Your task to perform on an android device: open chrome and create a bookmark for the current page Image 0: 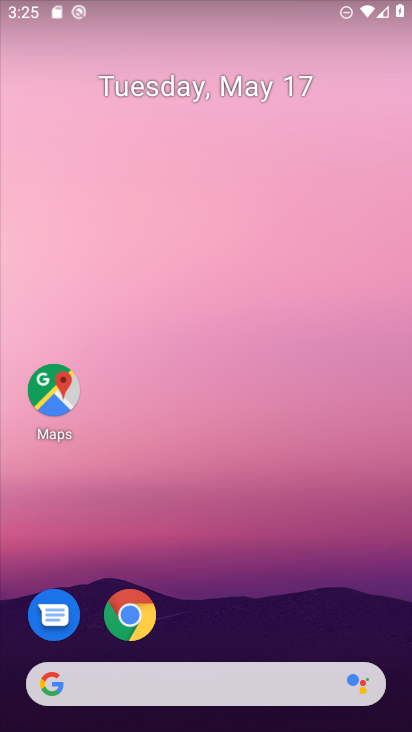
Step 0: click (125, 621)
Your task to perform on an android device: open chrome and create a bookmark for the current page Image 1: 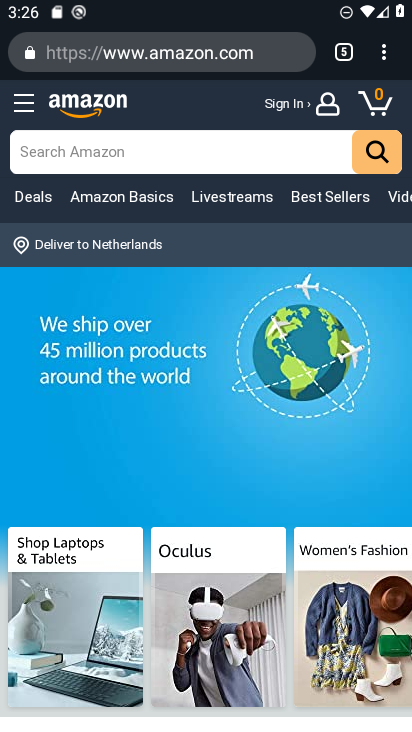
Step 1: click (387, 57)
Your task to perform on an android device: open chrome and create a bookmark for the current page Image 2: 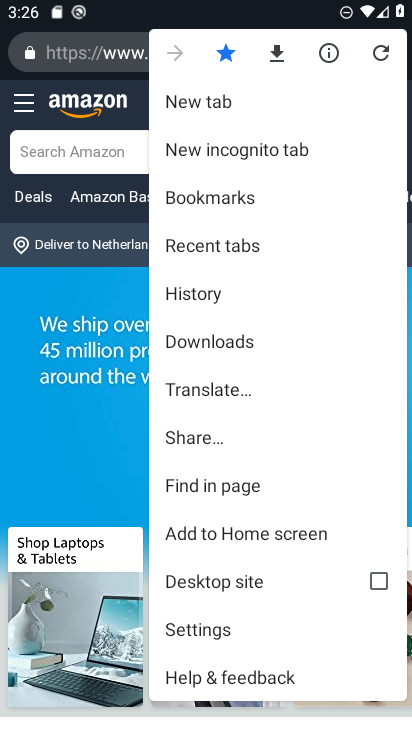
Step 2: task complete